Your task to perform on an android device: check battery use Image 0: 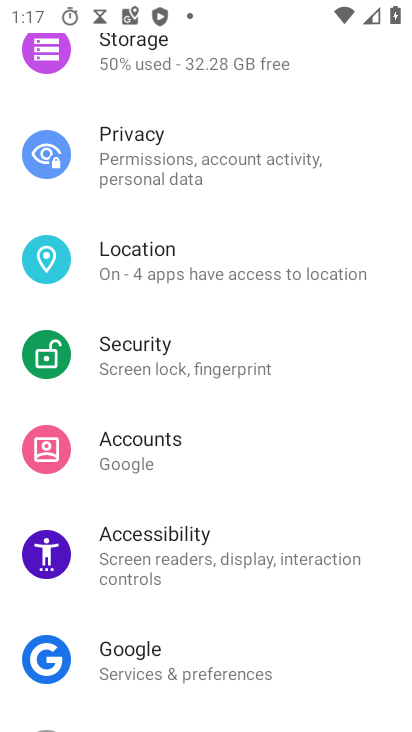
Step 0: press home button
Your task to perform on an android device: check battery use Image 1: 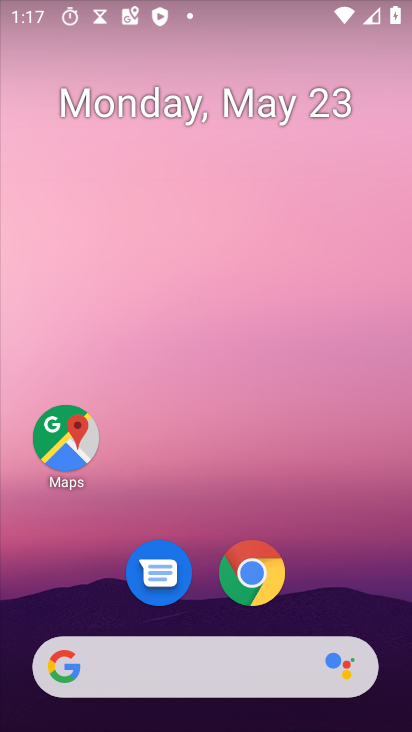
Step 1: drag from (185, 676) to (331, 75)
Your task to perform on an android device: check battery use Image 2: 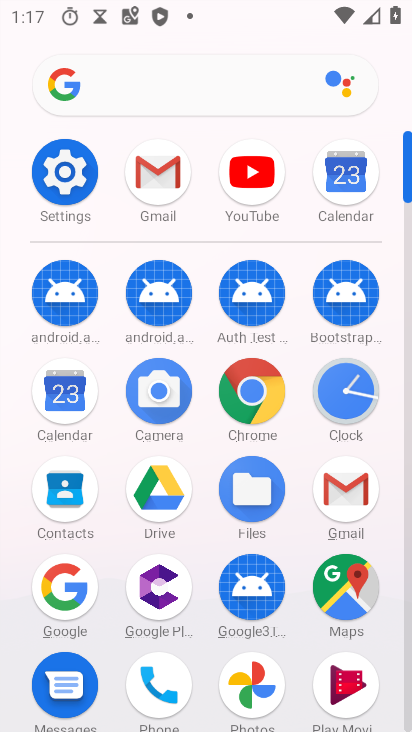
Step 2: click (64, 186)
Your task to perform on an android device: check battery use Image 3: 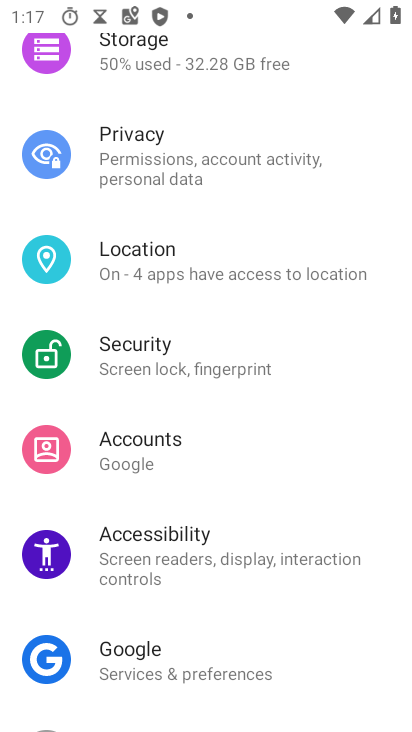
Step 3: drag from (339, 105) to (325, 492)
Your task to perform on an android device: check battery use Image 4: 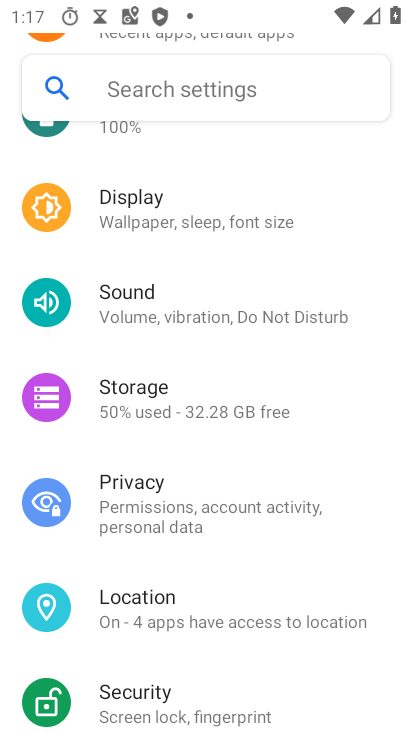
Step 4: drag from (328, 179) to (322, 621)
Your task to perform on an android device: check battery use Image 5: 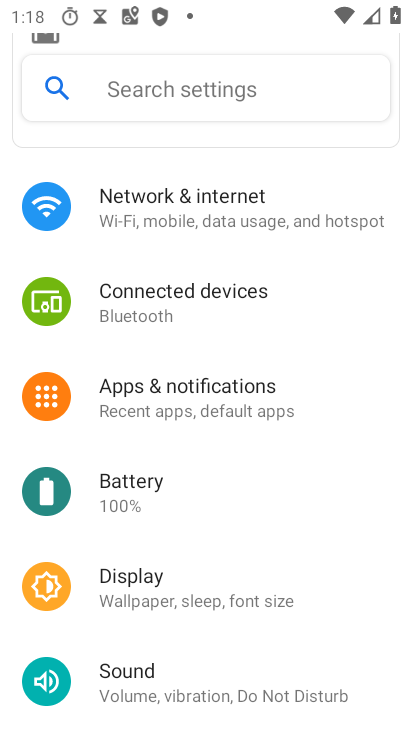
Step 5: click (121, 496)
Your task to perform on an android device: check battery use Image 6: 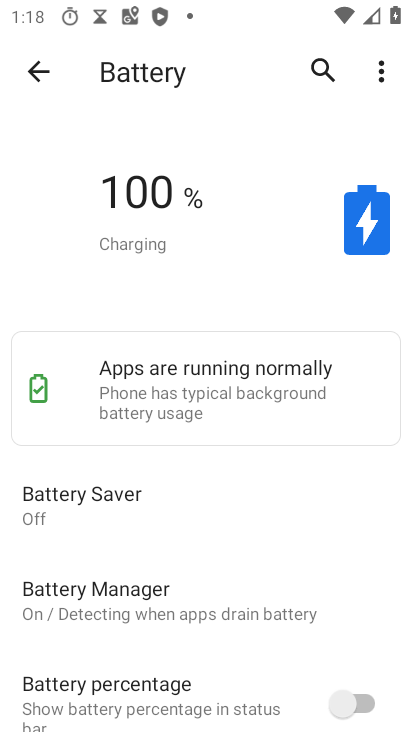
Step 6: click (379, 66)
Your task to perform on an android device: check battery use Image 7: 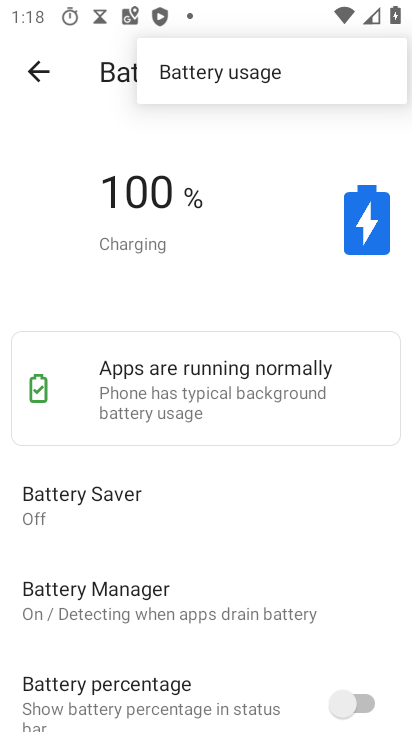
Step 7: click (274, 72)
Your task to perform on an android device: check battery use Image 8: 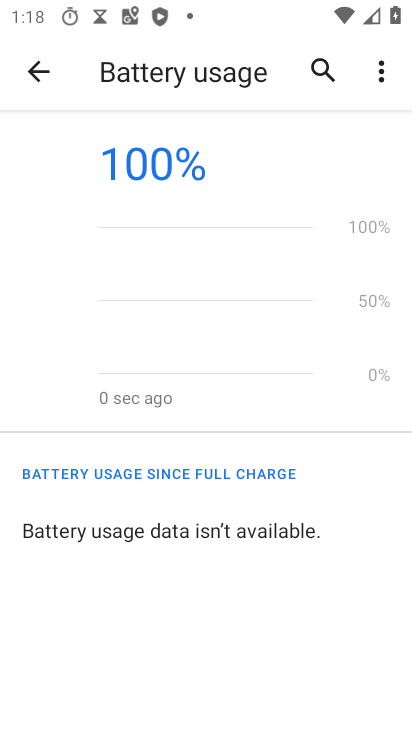
Step 8: task complete